Your task to perform on an android device: change alarm snooze length Image 0: 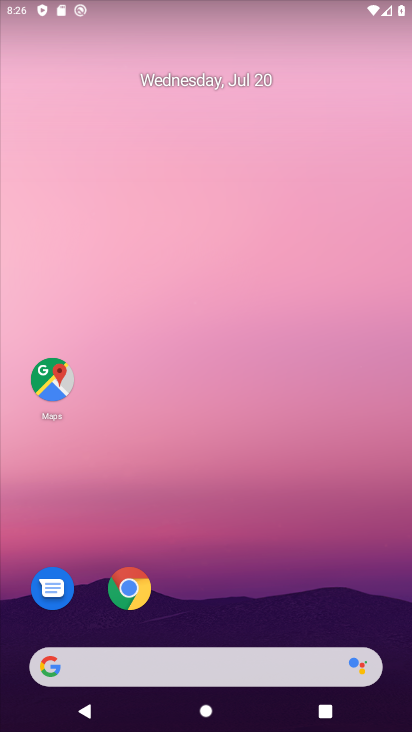
Step 0: drag from (199, 617) to (124, 4)
Your task to perform on an android device: change alarm snooze length Image 1: 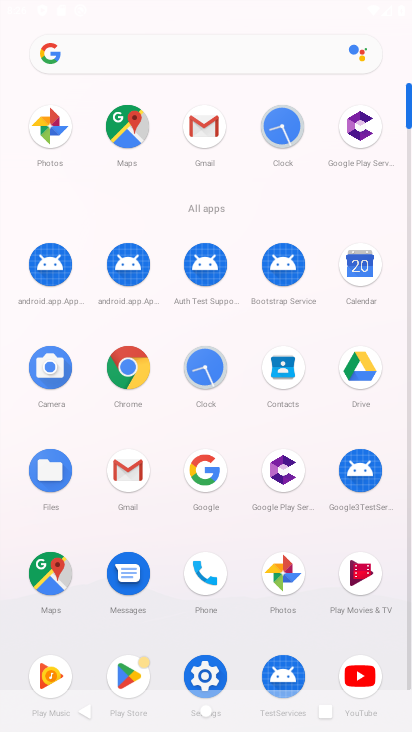
Step 1: click (200, 365)
Your task to perform on an android device: change alarm snooze length Image 2: 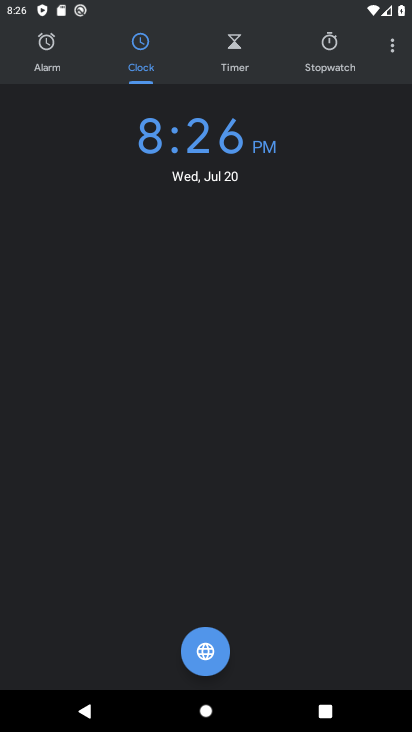
Step 2: click (394, 44)
Your task to perform on an android device: change alarm snooze length Image 3: 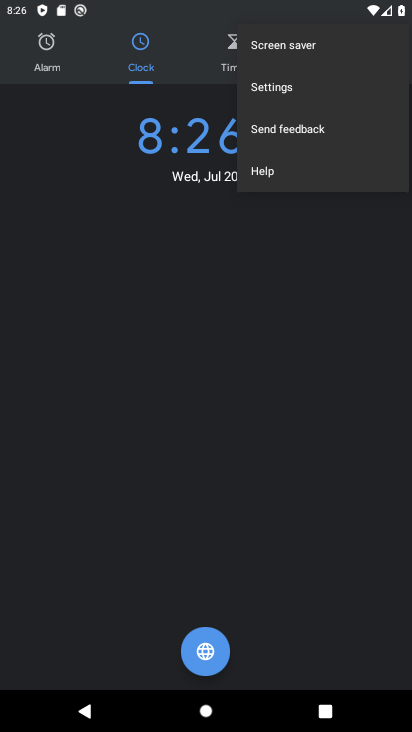
Step 3: click (301, 88)
Your task to perform on an android device: change alarm snooze length Image 4: 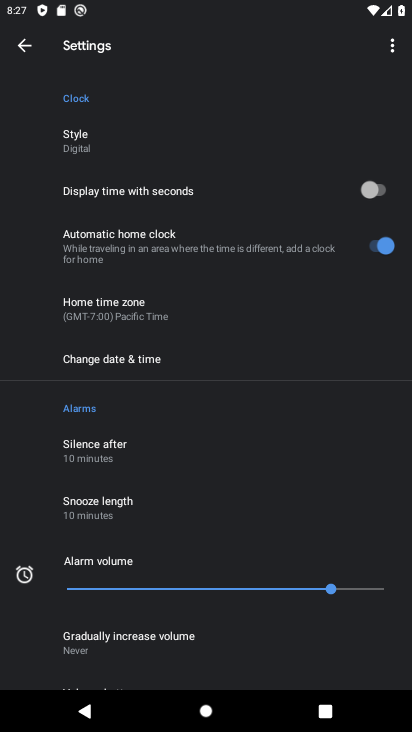
Step 4: click (65, 503)
Your task to perform on an android device: change alarm snooze length Image 5: 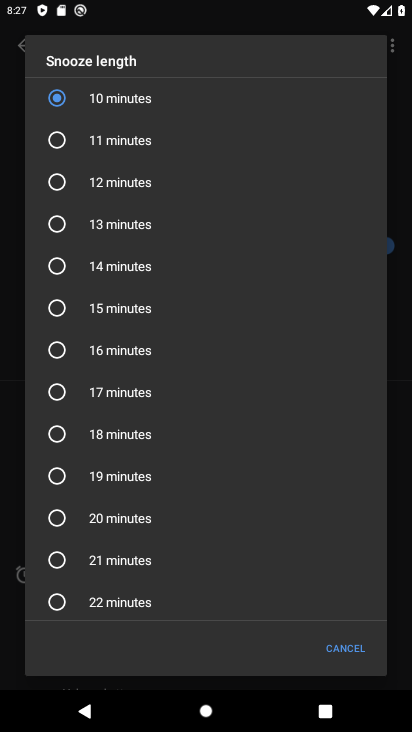
Step 5: click (118, 173)
Your task to perform on an android device: change alarm snooze length Image 6: 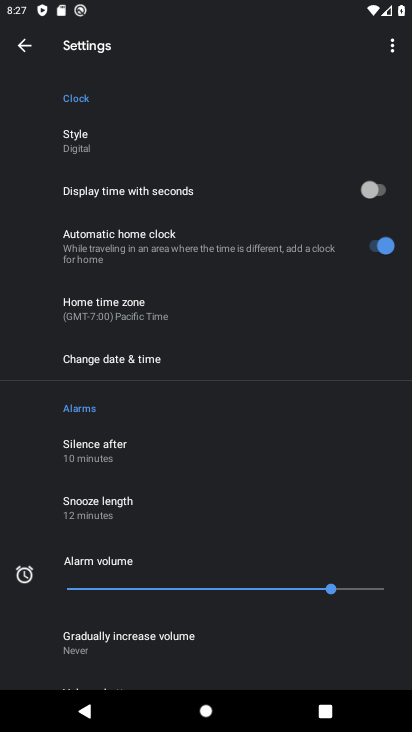
Step 6: task complete